Your task to perform on an android device: turn off picture-in-picture Image 0: 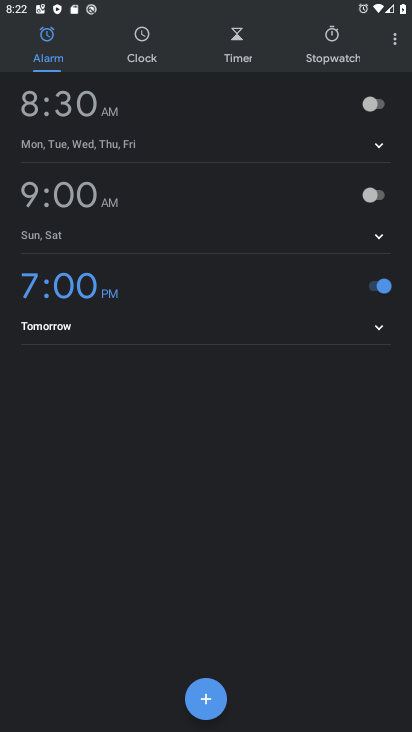
Step 0: press home button
Your task to perform on an android device: turn off picture-in-picture Image 1: 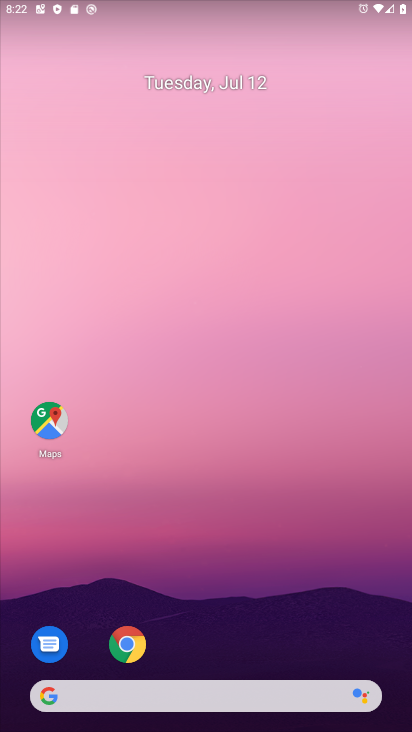
Step 1: click (126, 649)
Your task to perform on an android device: turn off picture-in-picture Image 2: 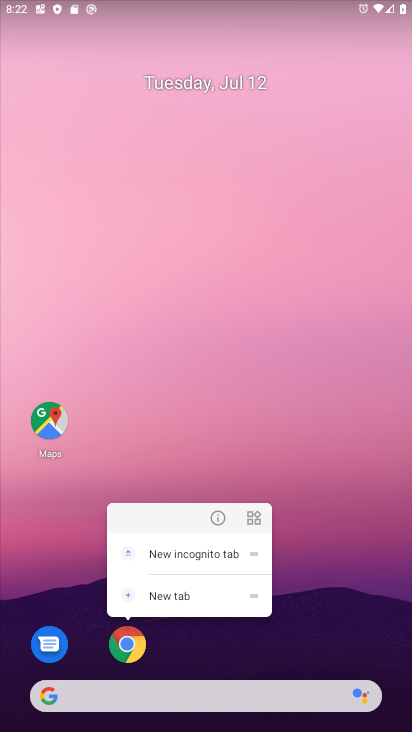
Step 2: click (220, 524)
Your task to perform on an android device: turn off picture-in-picture Image 3: 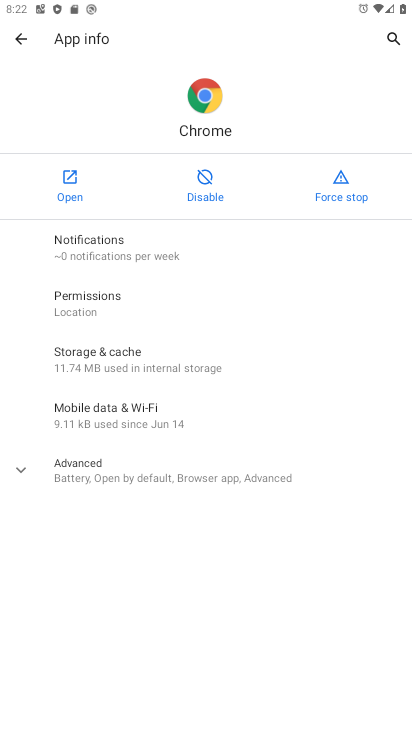
Step 3: click (217, 487)
Your task to perform on an android device: turn off picture-in-picture Image 4: 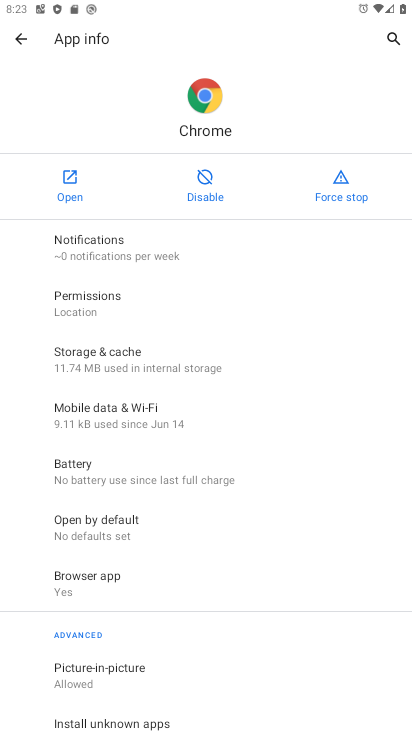
Step 4: click (154, 669)
Your task to perform on an android device: turn off picture-in-picture Image 5: 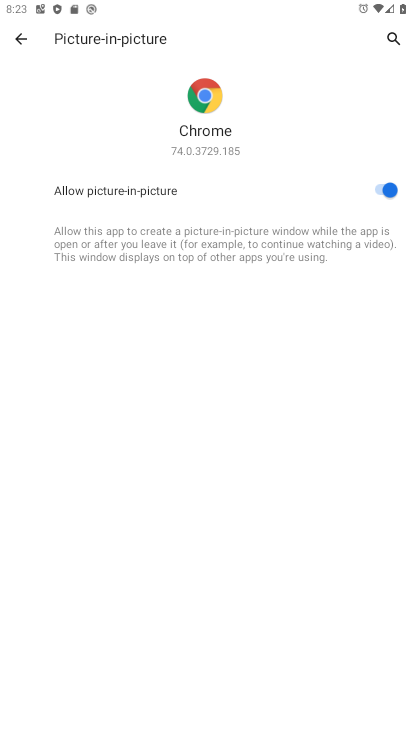
Step 5: click (382, 189)
Your task to perform on an android device: turn off picture-in-picture Image 6: 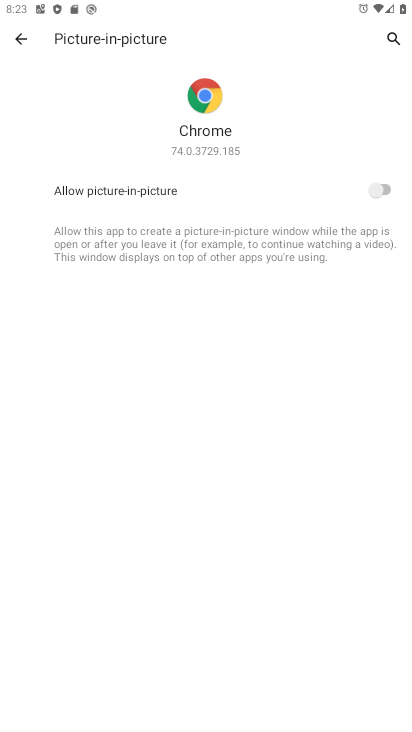
Step 6: task complete